Your task to perform on an android device: Open Google Maps Image 0: 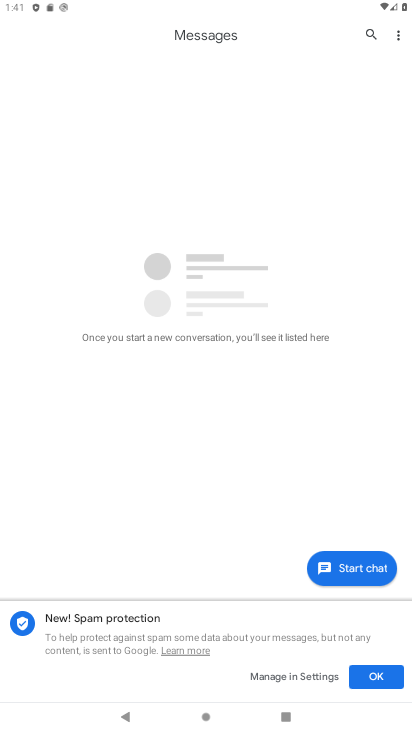
Step 0: press home button
Your task to perform on an android device: Open Google Maps Image 1: 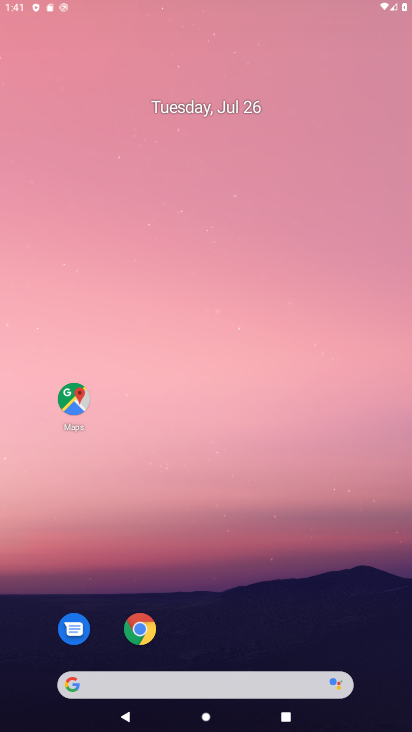
Step 1: drag from (325, 624) to (335, 93)
Your task to perform on an android device: Open Google Maps Image 2: 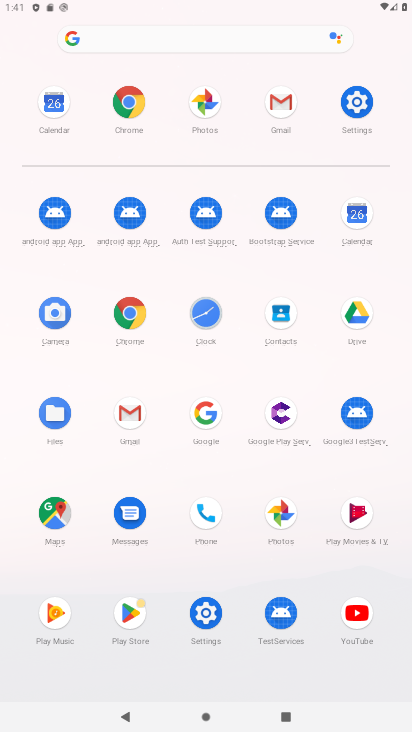
Step 2: click (59, 523)
Your task to perform on an android device: Open Google Maps Image 3: 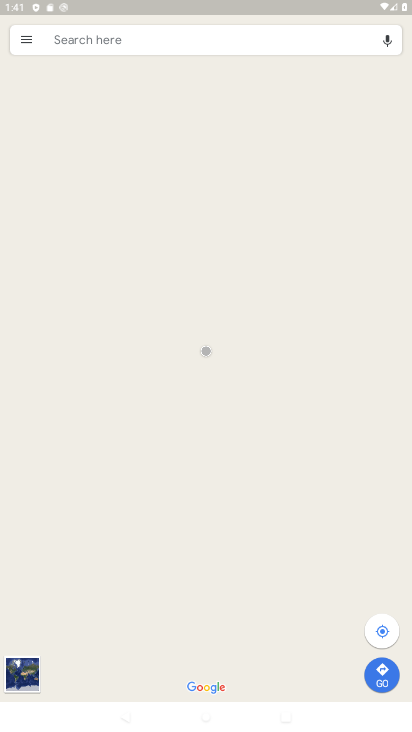
Step 3: task complete